Your task to perform on an android device: Do I have any events tomorrow? Image 0: 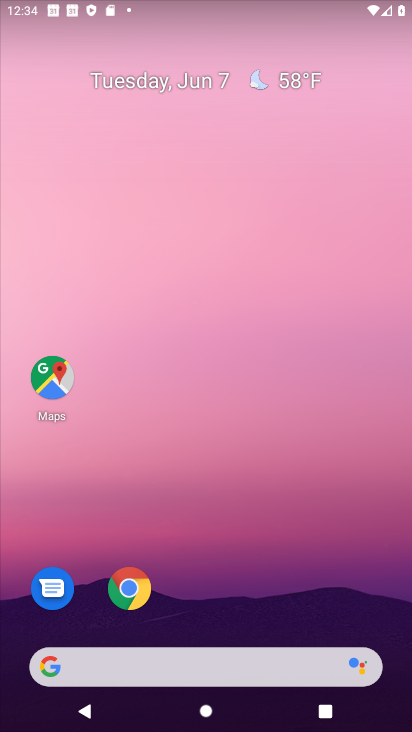
Step 0: drag from (282, 604) to (264, 72)
Your task to perform on an android device: Do I have any events tomorrow? Image 1: 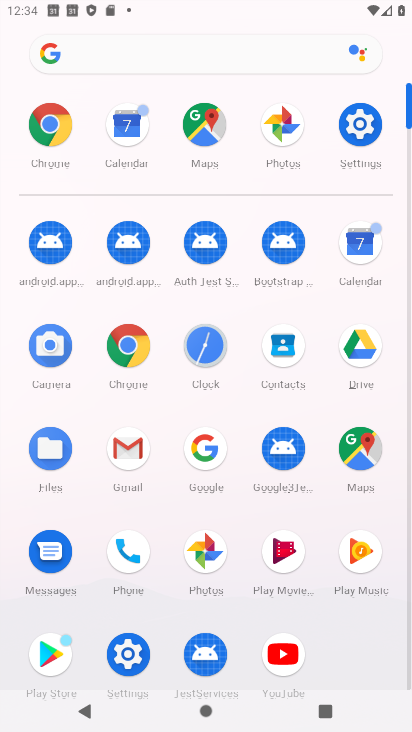
Step 1: click (348, 144)
Your task to perform on an android device: Do I have any events tomorrow? Image 2: 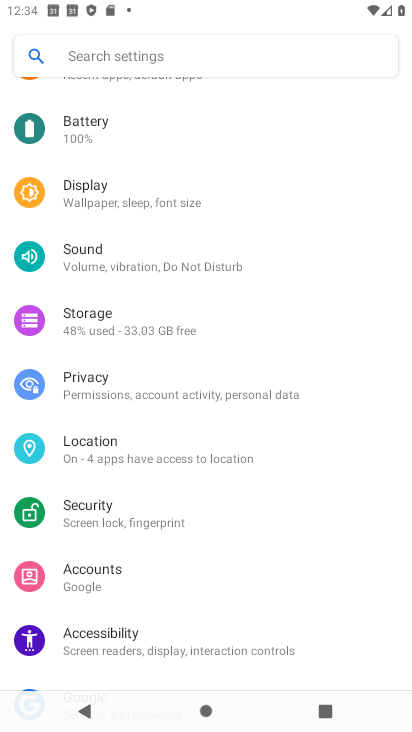
Step 2: drag from (161, 619) to (226, 292)
Your task to perform on an android device: Do I have any events tomorrow? Image 3: 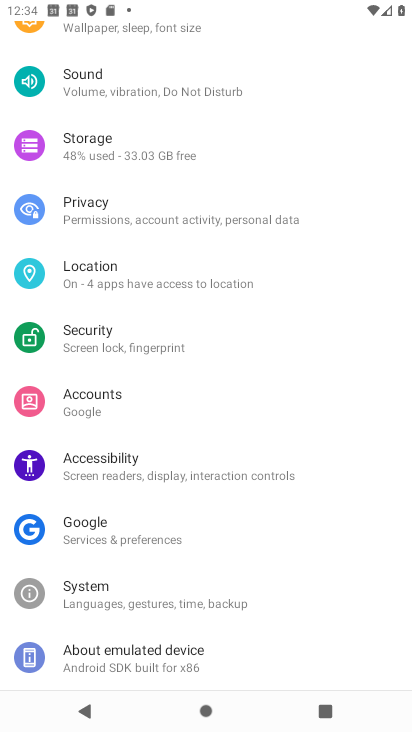
Step 3: drag from (190, 305) to (189, 678)
Your task to perform on an android device: Do I have any events tomorrow? Image 4: 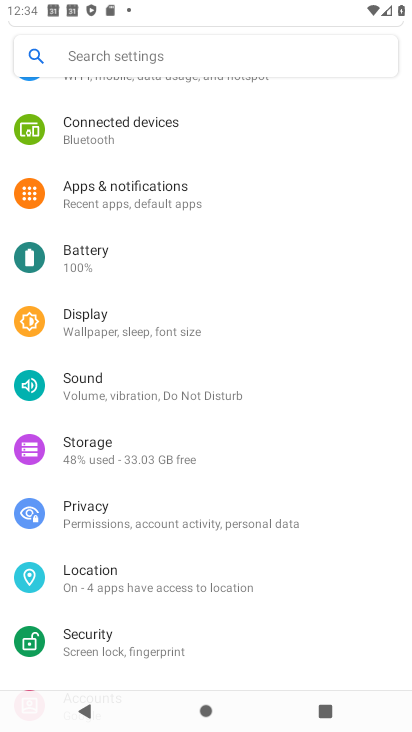
Step 4: drag from (198, 192) to (173, 390)
Your task to perform on an android device: Do I have any events tomorrow? Image 5: 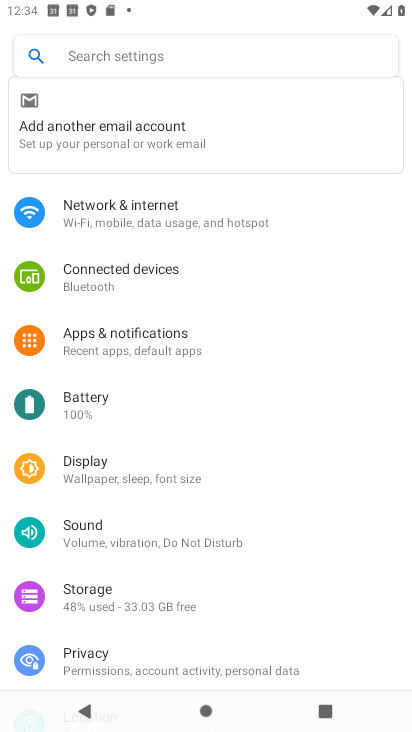
Step 5: press home button
Your task to perform on an android device: Do I have any events tomorrow? Image 6: 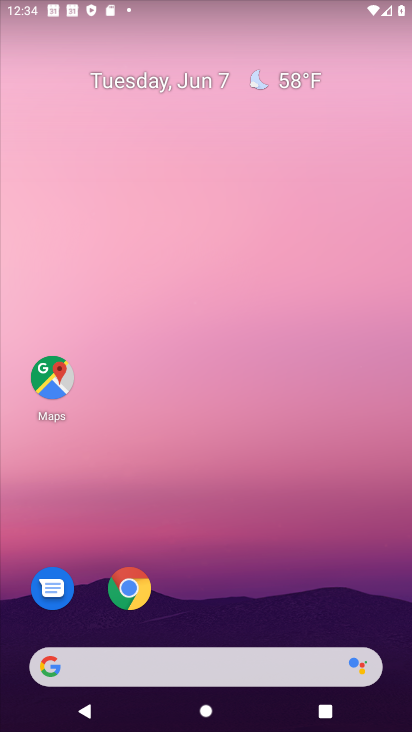
Step 6: drag from (304, 619) to (279, 93)
Your task to perform on an android device: Do I have any events tomorrow? Image 7: 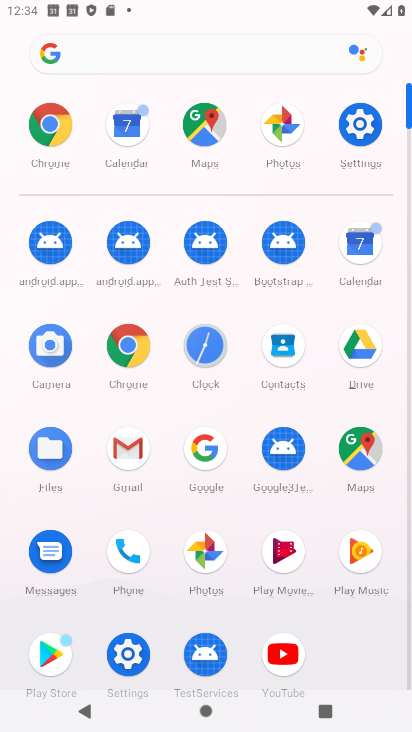
Step 7: click (347, 243)
Your task to perform on an android device: Do I have any events tomorrow? Image 8: 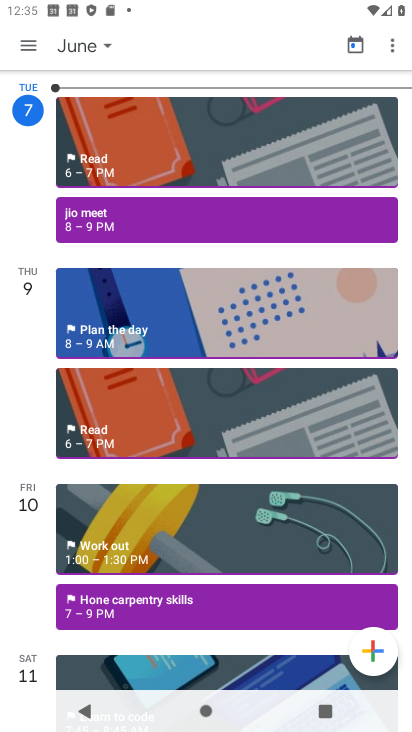
Step 8: task complete